Your task to perform on an android device: Go to Google maps Image 0: 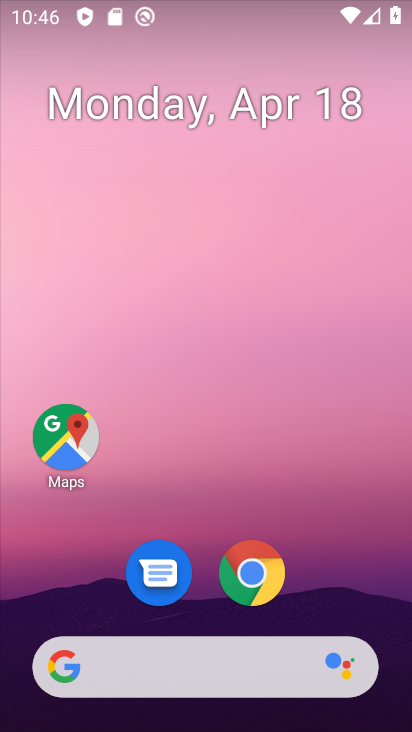
Step 0: click (72, 442)
Your task to perform on an android device: Go to Google maps Image 1: 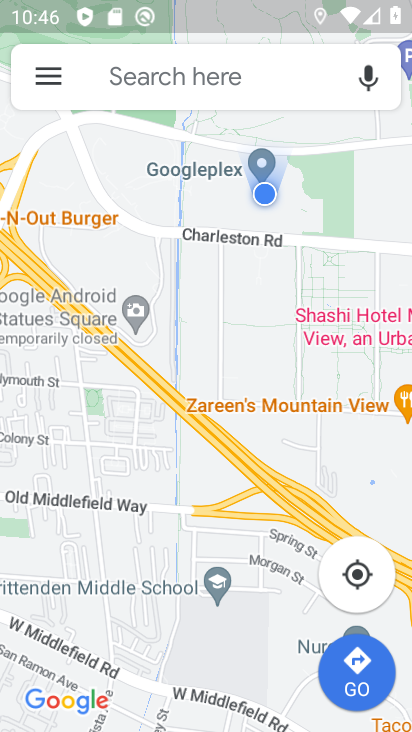
Step 1: task complete